Your task to perform on an android device: Open calendar and show me the first week of next month Image 0: 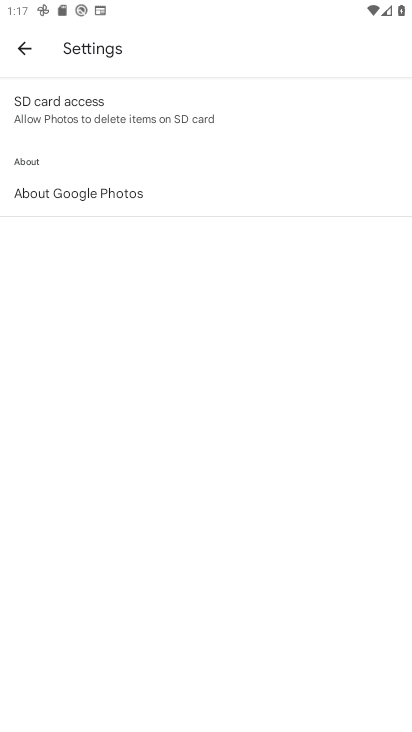
Step 0: press home button
Your task to perform on an android device: Open calendar and show me the first week of next month Image 1: 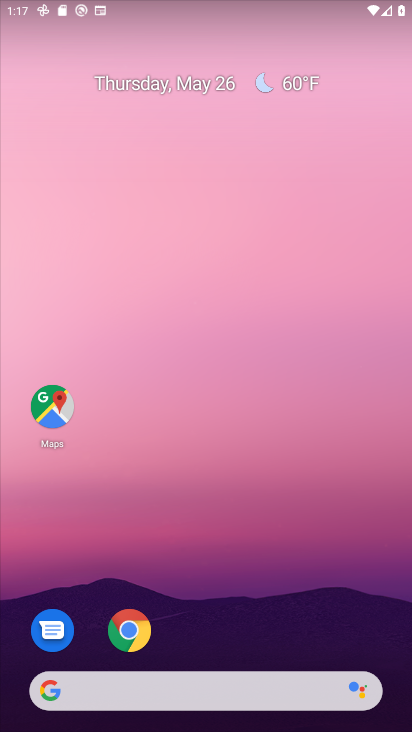
Step 1: drag from (292, 565) to (321, 230)
Your task to perform on an android device: Open calendar and show me the first week of next month Image 2: 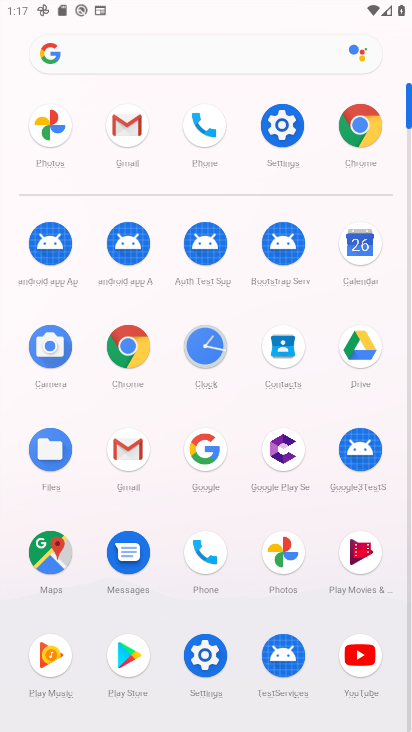
Step 2: click (362, 248)
Your task to perform on an android device: Open calendar and show me the first week of next month Image 3: 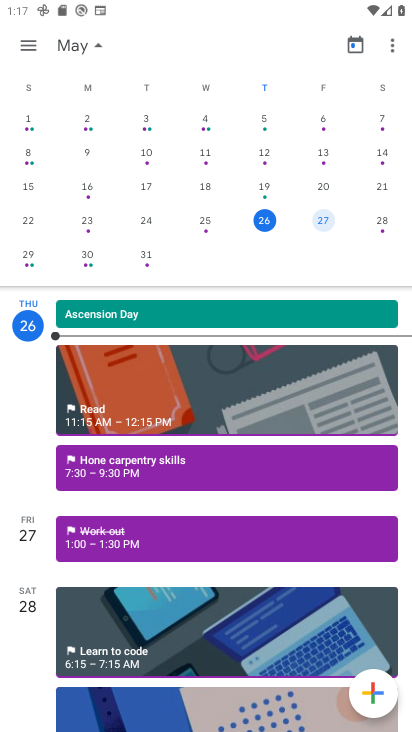
Step 3: drag from (351, 184) to (24, 244)
Your task to perform on an android device: Open calendar and show me the first week of next month Image 4: 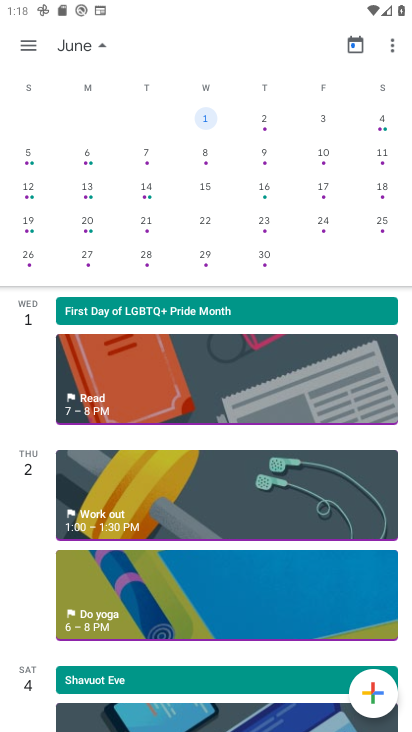
Step 4: click (139, 152)
Your task to perform on an android device: Open calendar and show me the first week of next month Image 5: 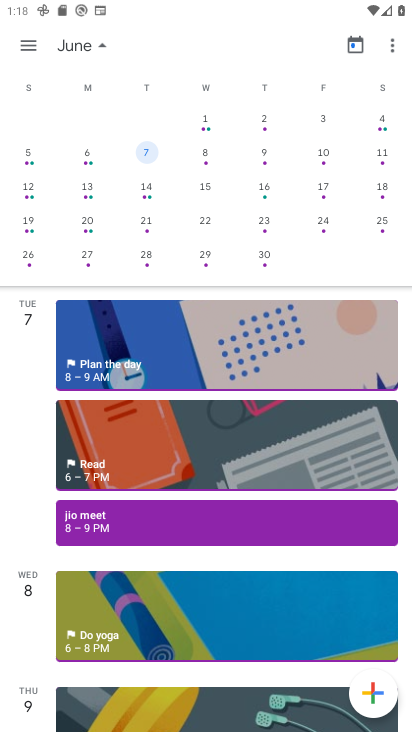
Step 5: task complete